Your task to perform on an android device: Open Google Chrome and click the shortcut for Amazon.com Image 0: 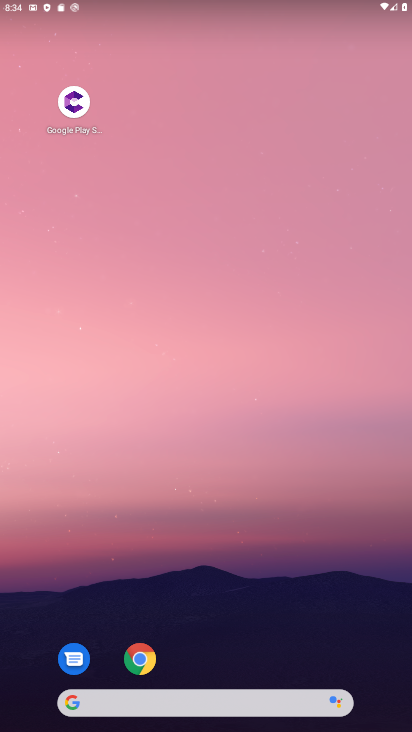
Step 0: drag from (194, 730) to (259, 73)
Your task to perform on an android device: Open Google Chrome and click the shortcut for Amazon.com Image 1: 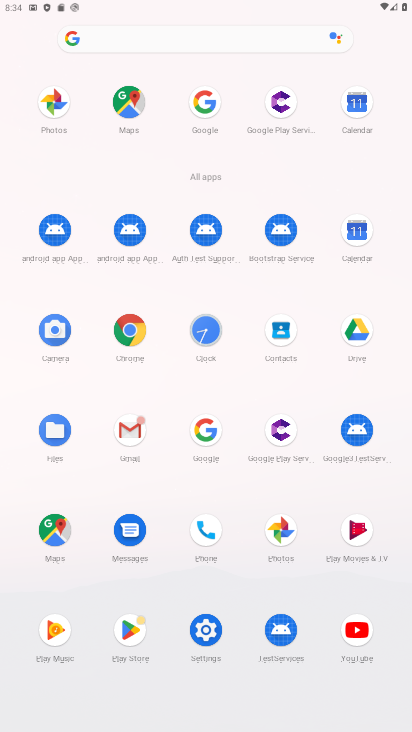
Step 1: click (127, 333)
Your task to perform on an android device: Open Google Chrome and click the shortcut for Amazon.com Image 2: 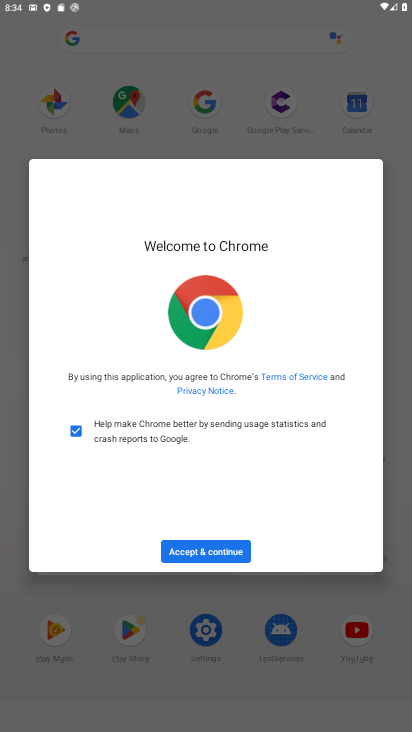
Step 2: click (184, 547)
Your task to perform on an android device: Open Google Chrome and click the shortcut for Amazon.com Image 3: 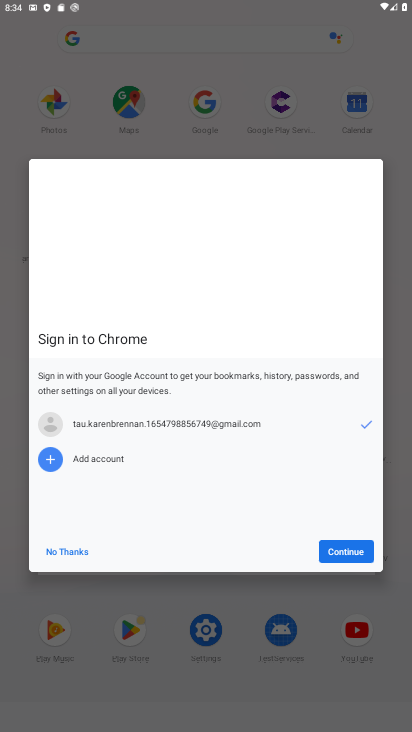
Step 3: click (345, 550)
Your task to perform on an android device: Open Google Chrome and click the shortcut for Amazon.com Image 4: 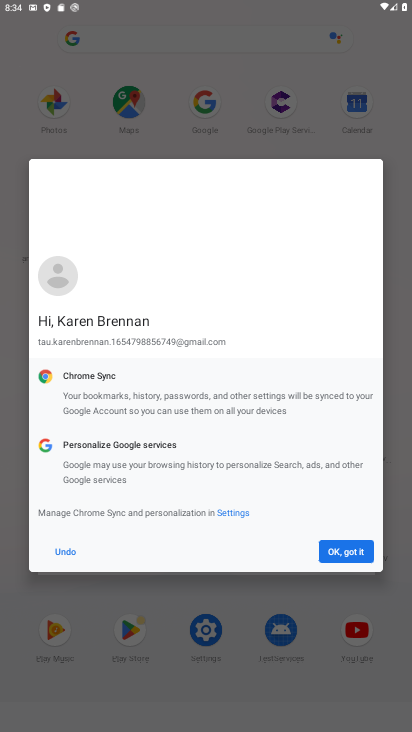
Step 4: click (344, 548)
Your task to perform on an android device: Open Google Chrome and click the shortcut for Amazon.com Image 5: 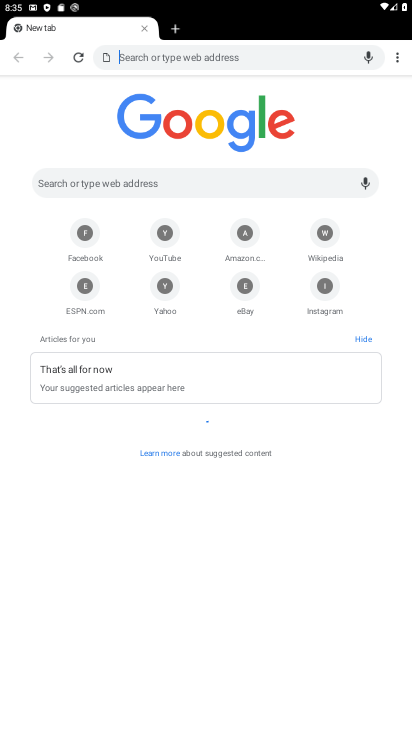
Step 5: click (250, 229)
Your task to perform on an android device: Open Google Chrome and click the shortcut for Amazon.com Image 6: 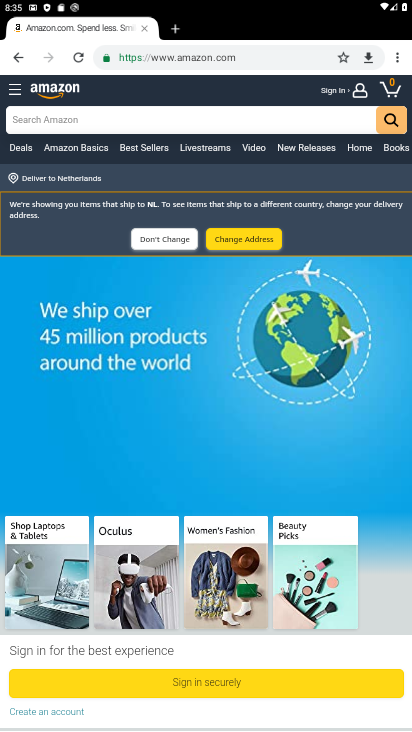
Step 6: task complete